Your task to perform on an android device: Go to Yahoo.com Image 0: 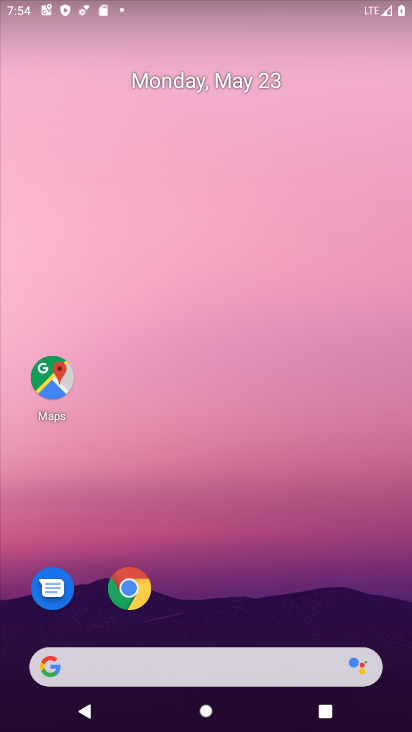
Step 0: click (130, 579)
Your task to perform on an android device: Go to Yahoo.com Image 1: 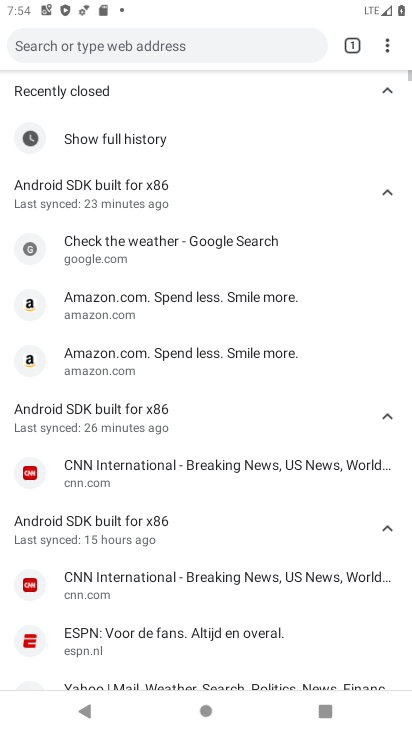
Step 1: click (243, 46)
Your task to perform on an android device: Go to Yahoo.com Image 2: 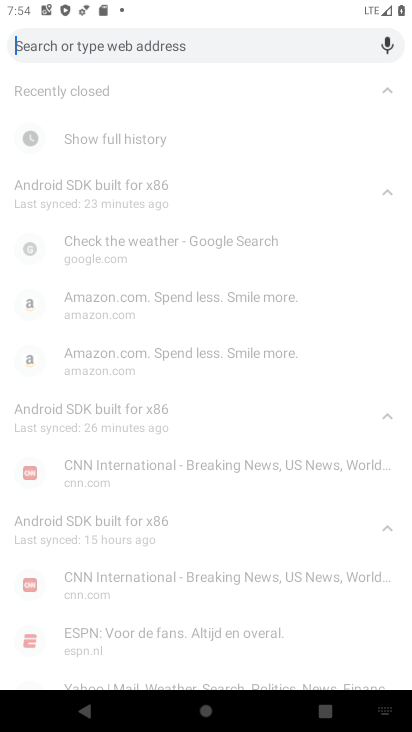
Step 2: type "Yahoo.com"
Your task to perform on an android device: Go to Yahoo.com Image 3: 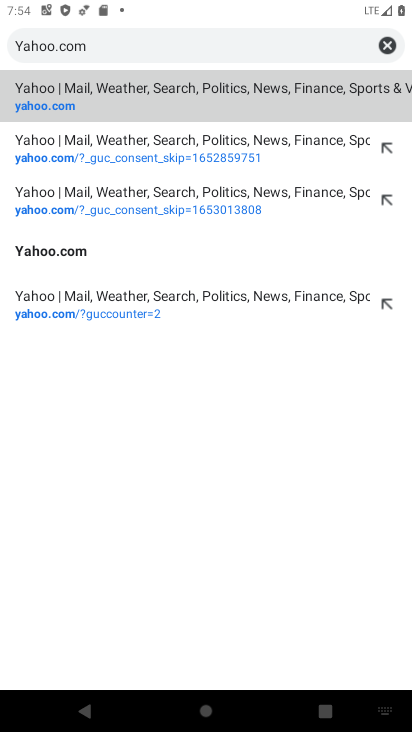
Step 3: click (42, 247)
Your task to perform on an android device: Go to Yahoo.com Image 4: 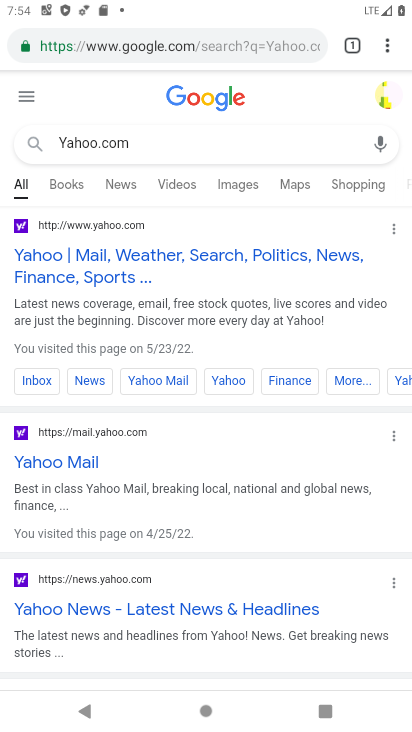
Step 4: task complete